Your task to perform on an android device: Go to sound settings Image 0: 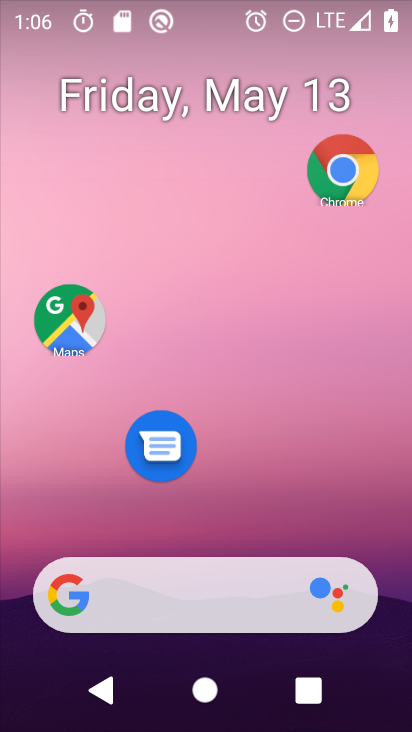
Step 0: drag from (143, 582) to (280, 0)
Your task to perform on an android device: Go to sound settings Image 1: 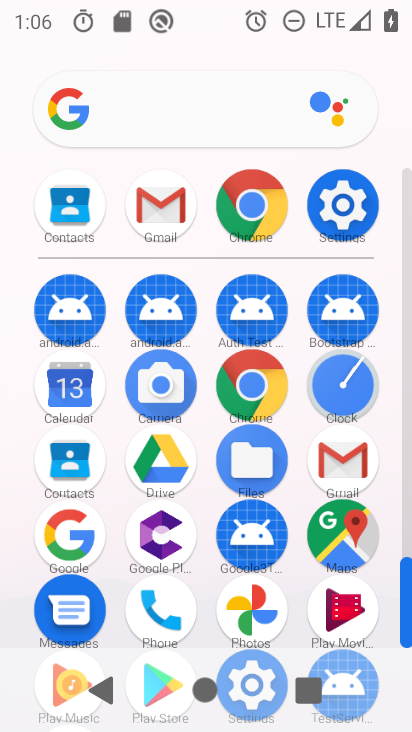
Step 1: click (344, 197)
Your task to perform on an android device: Go to sound settings Image 2: 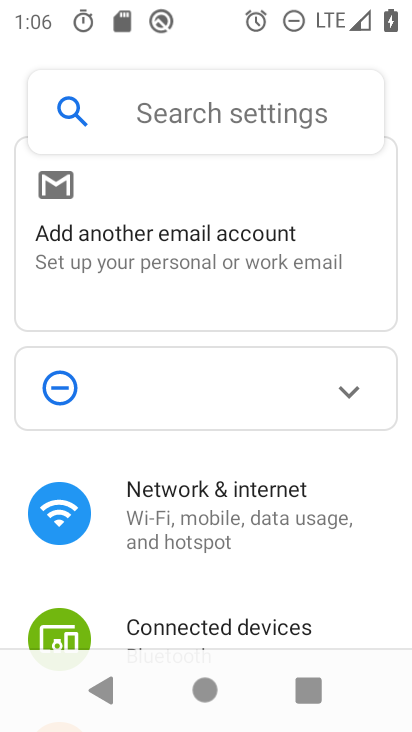
Step 2: drag from (279, 630) to (316, 173)
Your task to perform on an android device: Go to sound settings Image 3: 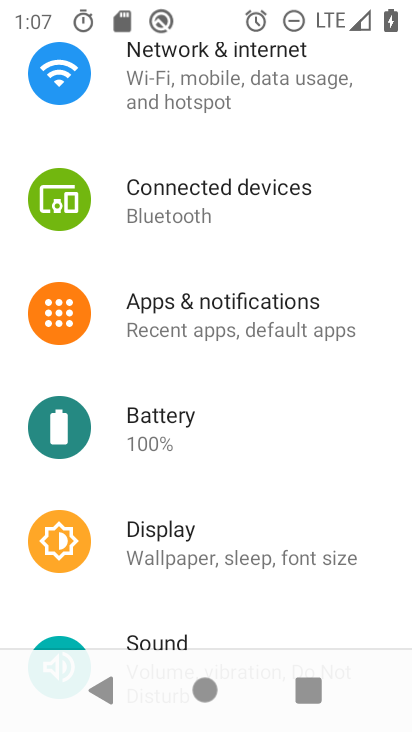
Step 3: drag from (101, 567) to (188, 668)
Your task to perform on an android device: Go to sound settings Image 4: 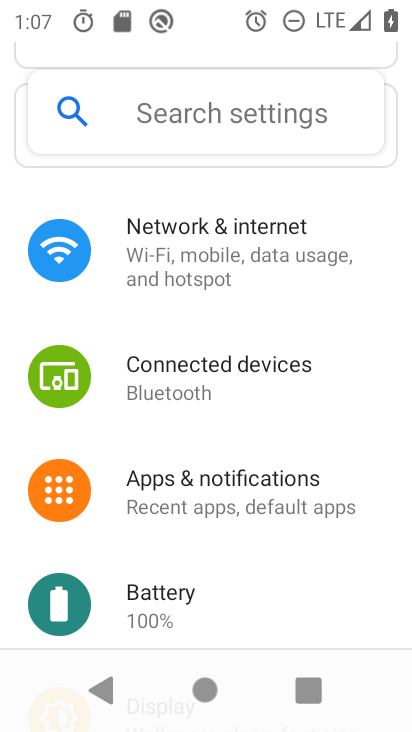
Step 4: click (307, 254)
Your task to perform on an android device: Go to sound settings Image 5: 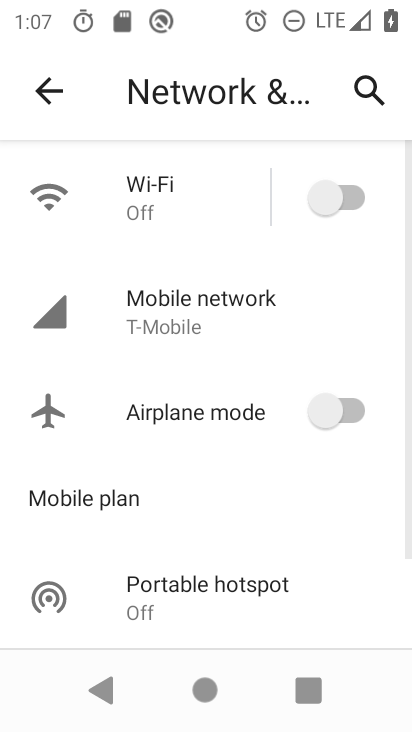
Step 5: drag from (224, 625) to (259, 199)
Your task to perform on an android device: Go to sound settings Image 6: 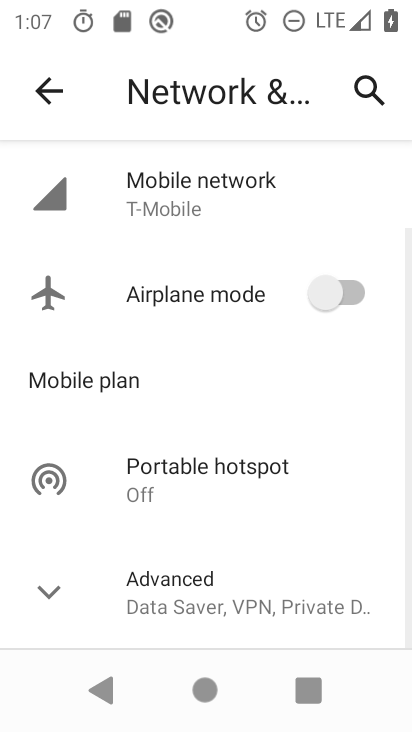
Step 6: press back button
Your task to perform on an android device: Go to sound settings Image 7: 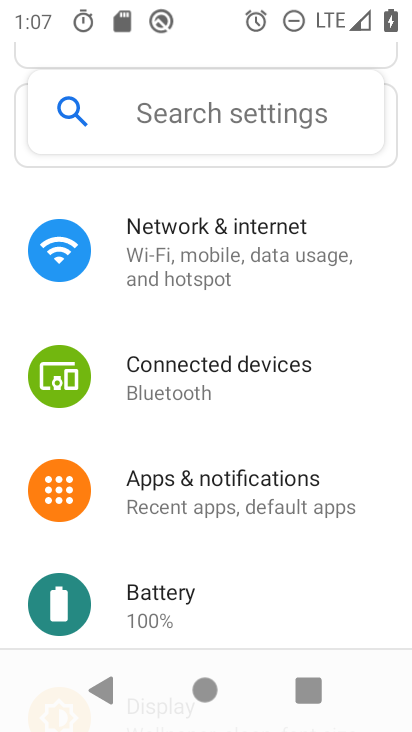
Step 7: drag from (229, 568) to (298, 83)
Your task to perform on an android device: Go to sound settings Image 8: 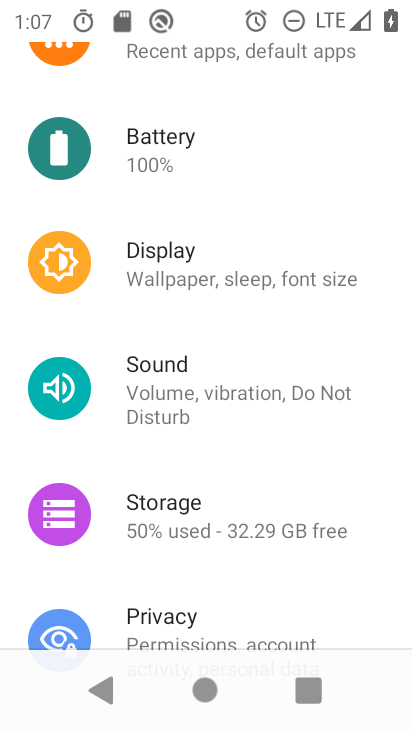
Step 8: click (221, 390)
Your task to perform on an android device: Go to sound settings Image 9: 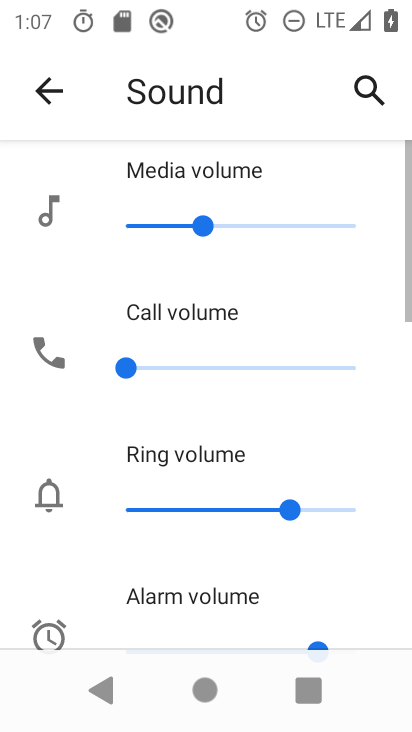
Step 9: task complete